Your task to perform on an android device: open a bookmark in the chrome app Image 0: 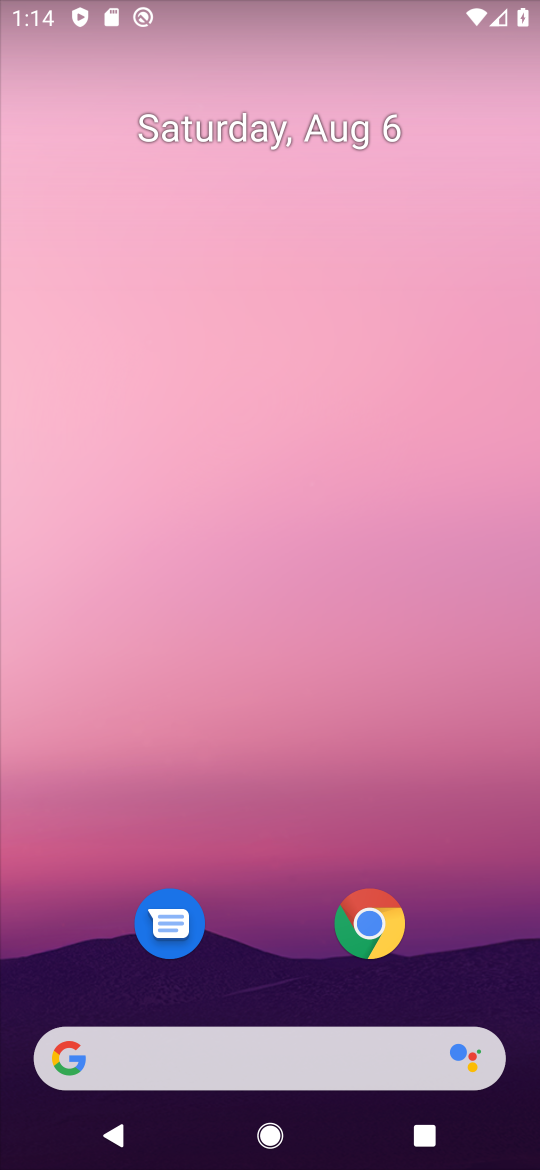
Step 0: click (477, 723)
Your task to perform on an android device: open a bookmark in the chrome app Image 1: 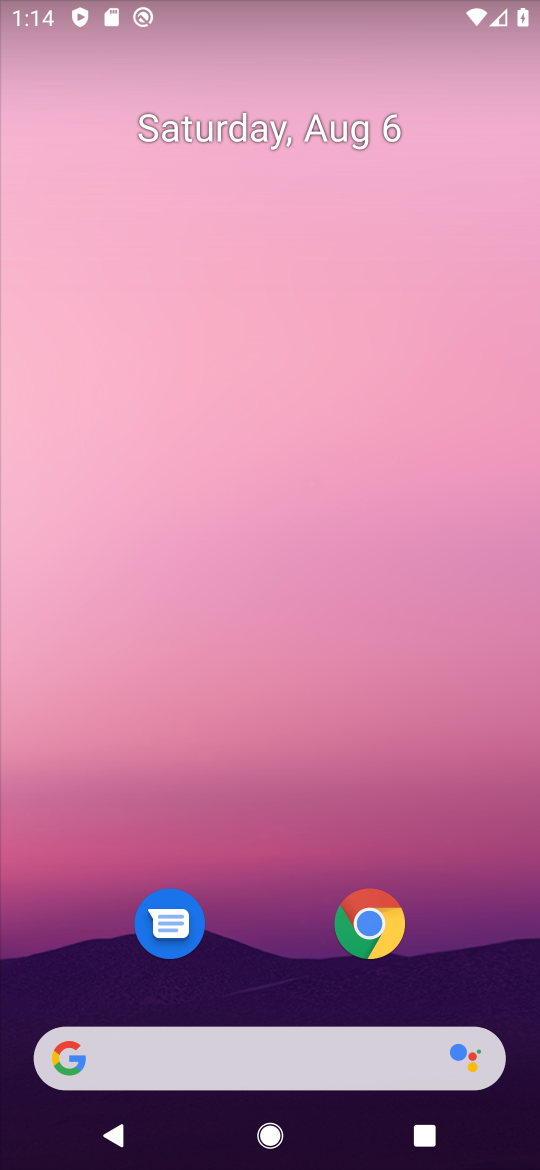
Step 1: drag from (203, 873) to (174, 490)
Your task to perform on an android device: open a bookmark in the chrome app Image 2: 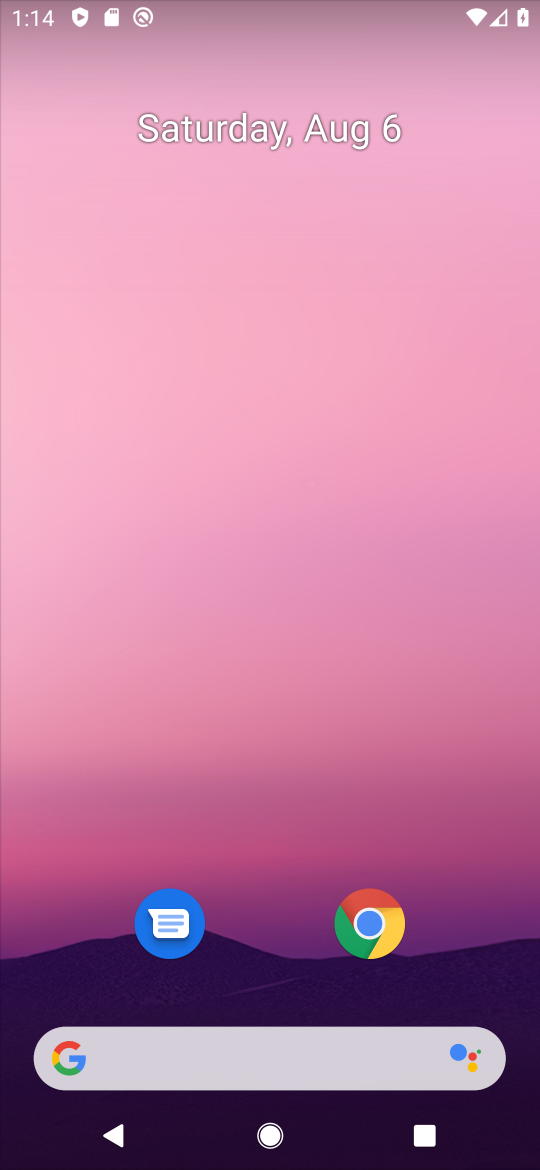
Step 2: drag from (267, 887) to (267, 702)
Your task to perform on an android device: open a bookmark in the chrome app Image 3: 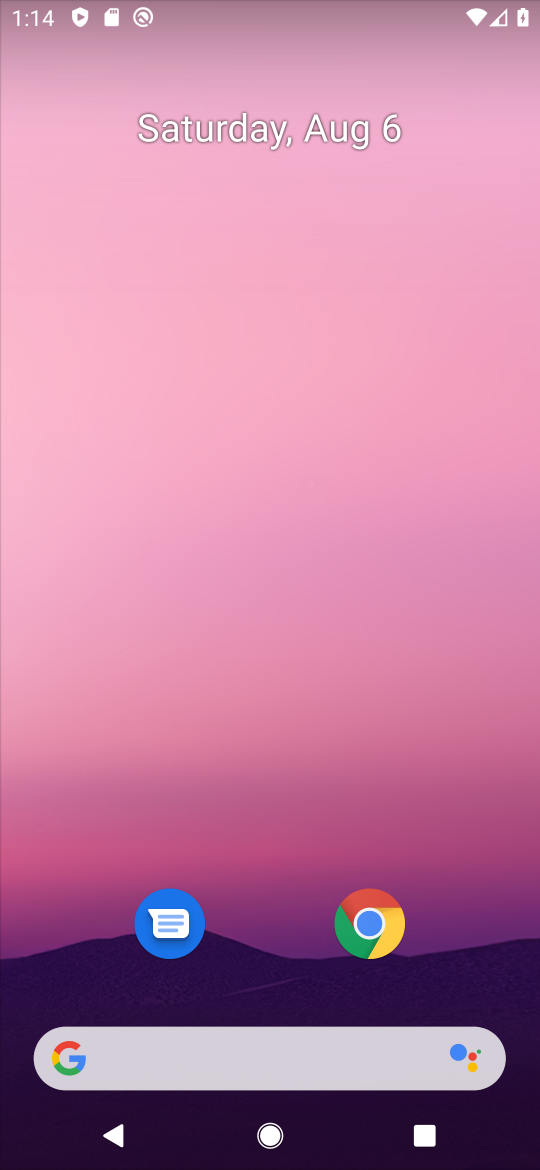
Step 3: drag from (261, 951) to (332, 313)
Your task to perform on an android device: open a bookmark in the chrome app Image 4: 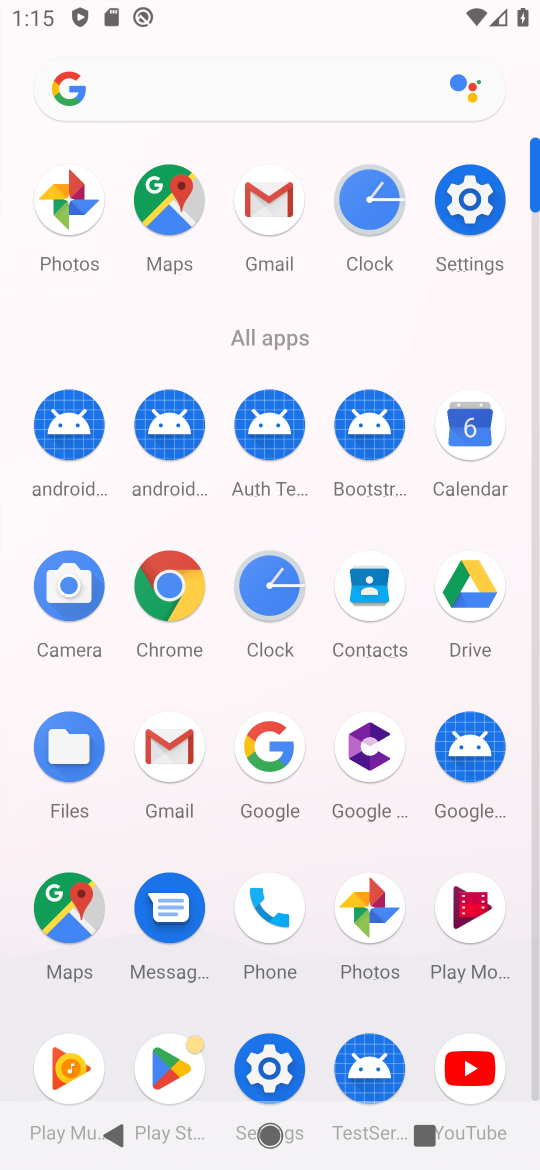
Step 4: click (152, 595)
Your task to perform on an android device: open a bookmark in the chrome app Image 5: 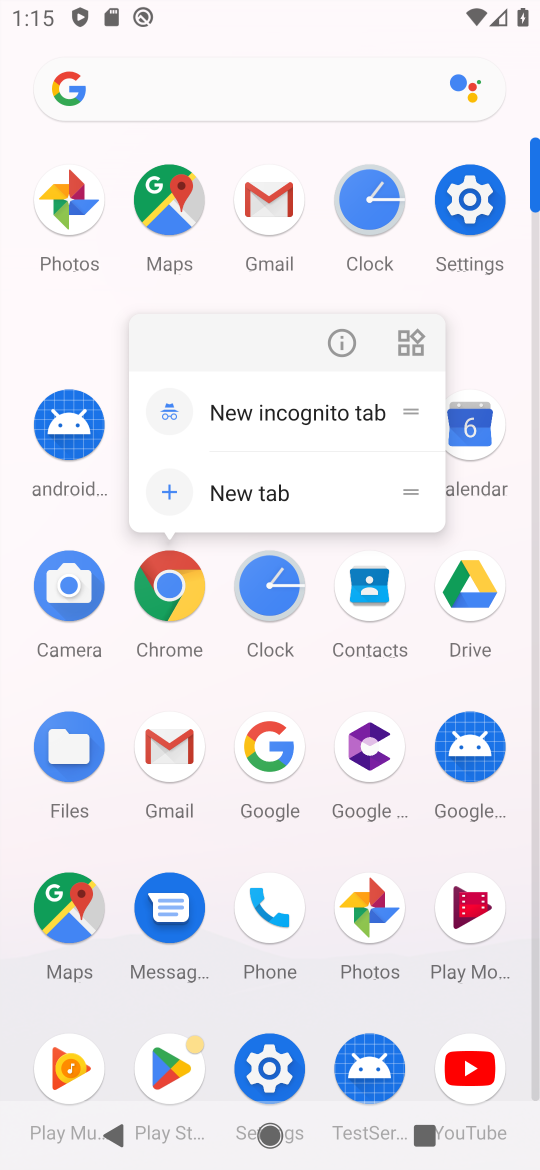
Step 5: click (337, 345)
Your task to perform on an android device: open a bookmark in the chrome app Image 6: 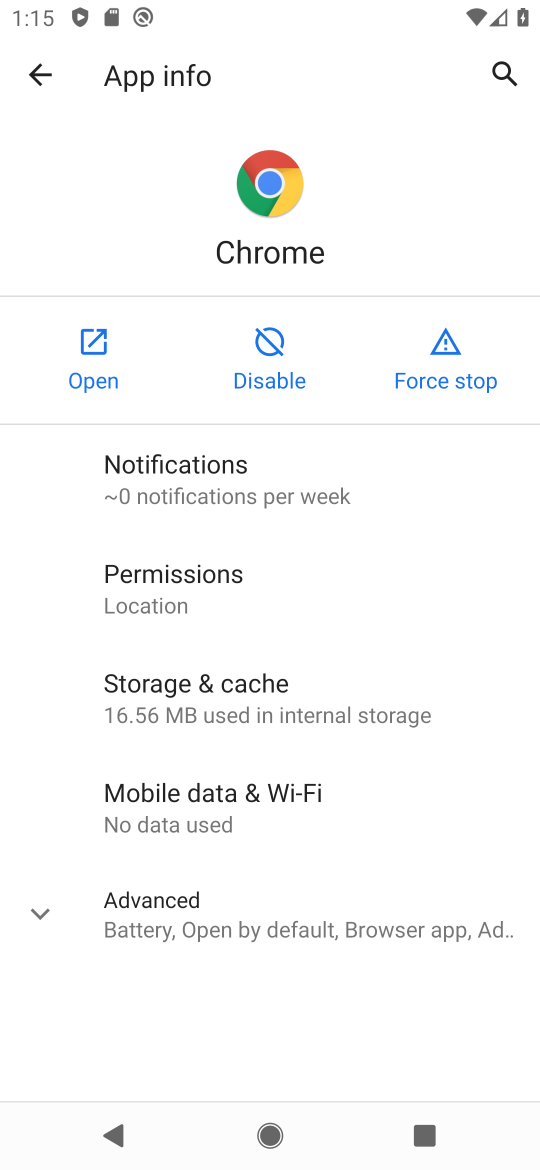
Step 6: click (103, 375)
Your task to perform on an android device: open a bookmark in the chrome app Image 7: 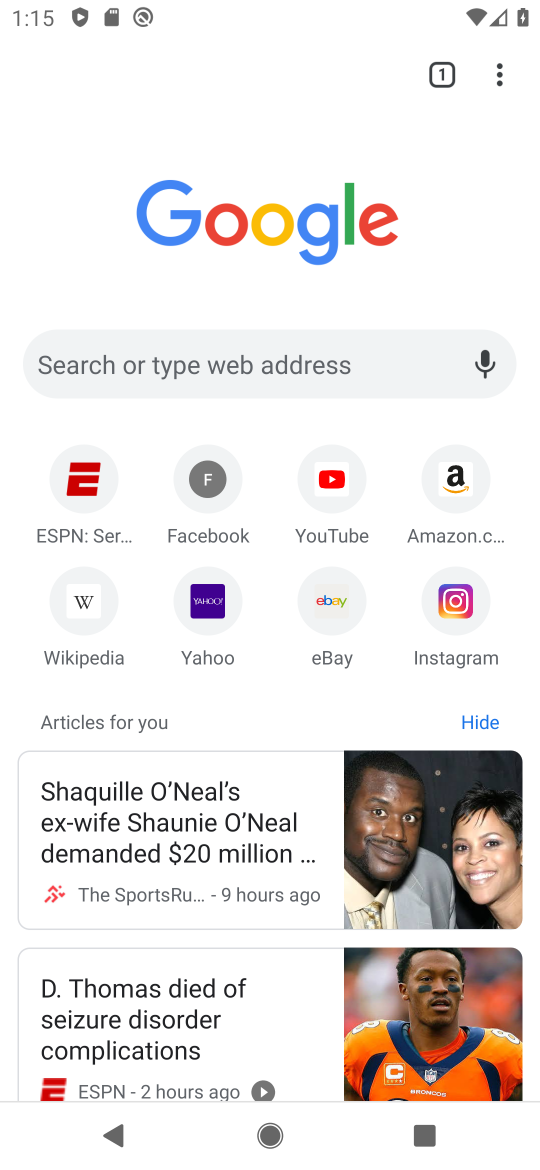
Step 7: task complete